Your task to perform on an android device: turn off smart reply in the gmail app Image 0: 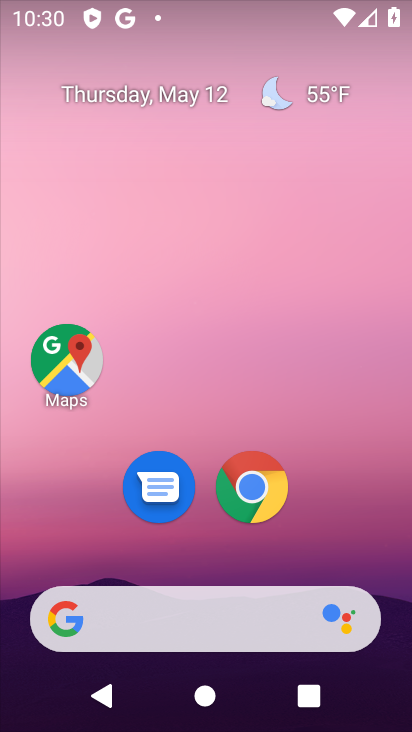
Step 0: drag from (372, 573) to (352, 11)
Your task to perform on an android device: turn off smart reply in the gmail app Image 1: 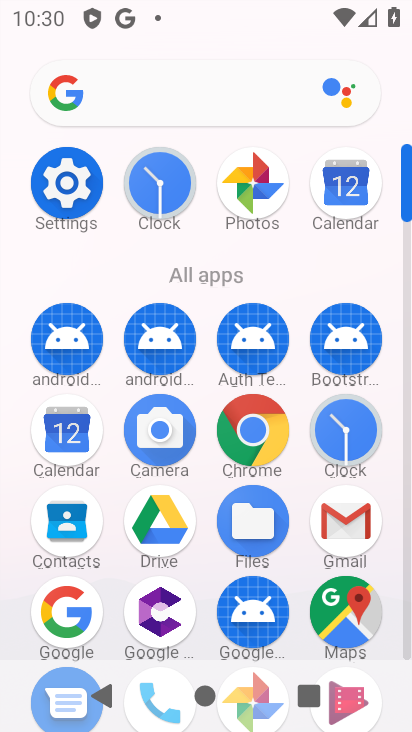
Step 1: click (344, 516)
Your task to perform on an android device: turn off smart reply in the gmail app Image 2: 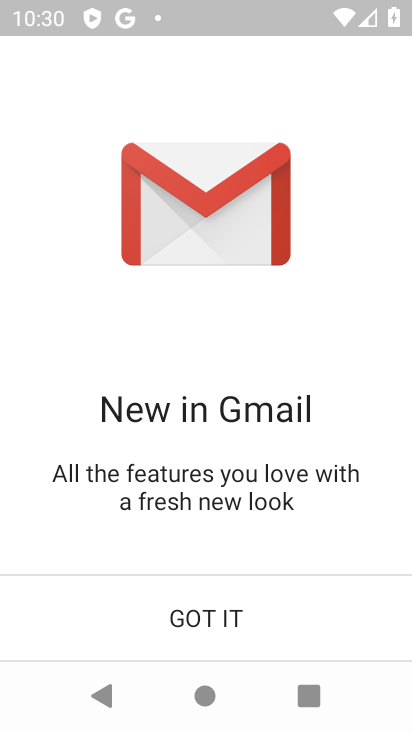
Step 2: click (190, 617)
Your task to perform on an android device: turn off smart reply in the gmail app Image 3: 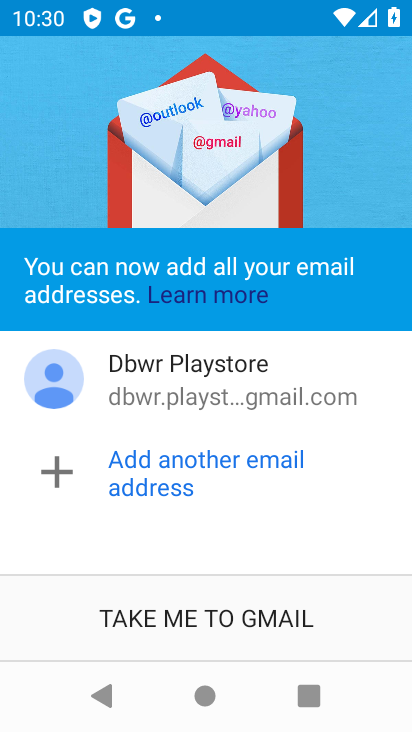
Step 3: click (190, 617)
Your task to perform on an android device: turn off smart reply in the gmail app Image 4: 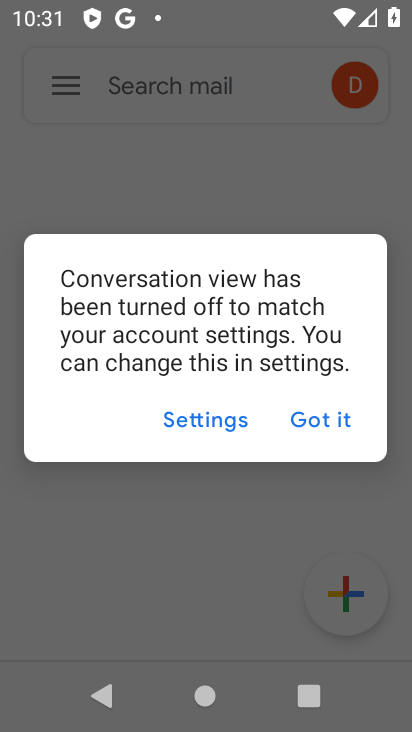
Step 4: click (330, 422)
Your task to perform on an android device: turn off smart reply in the gmail app Image 5: 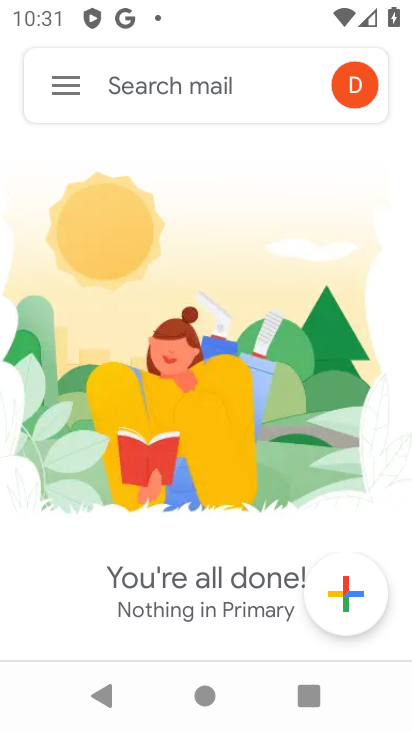
Step 5: click (71, 95)
Your task to perform on an android device: turn off smart reply in the gmail app Image 6: 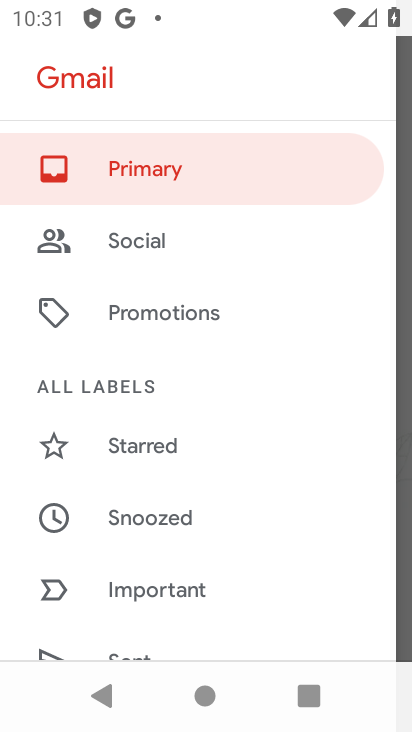
Step 6: drag from (242, 513) to (229, 189)
Your task to perform on an android device: turn off smart reply in the gmail app Image 7: 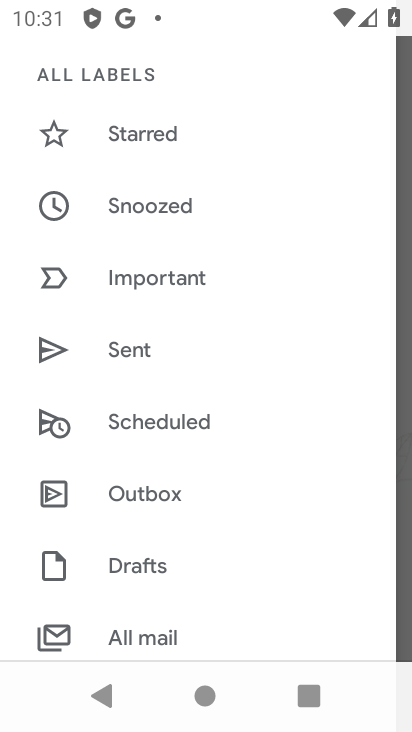
Step 7: drag from (208, 505) to (196, 55)
Your task to perform on an android device: turn off smart reply in the gmail app Image 8: 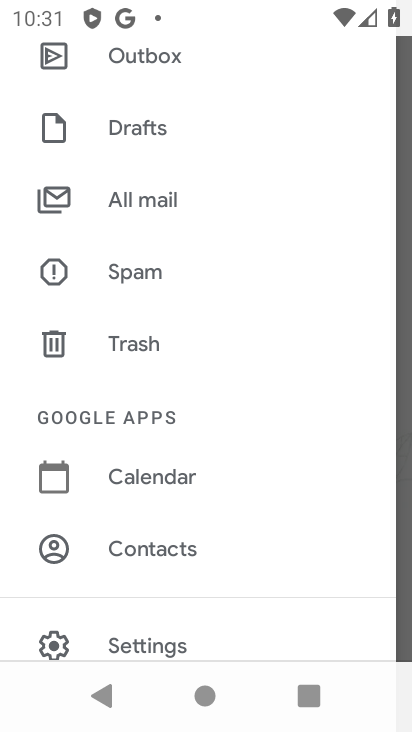
Step 8: click (139, 638)
Your task to perform on an android device: turn off smart reply in the gmail app Image 9: 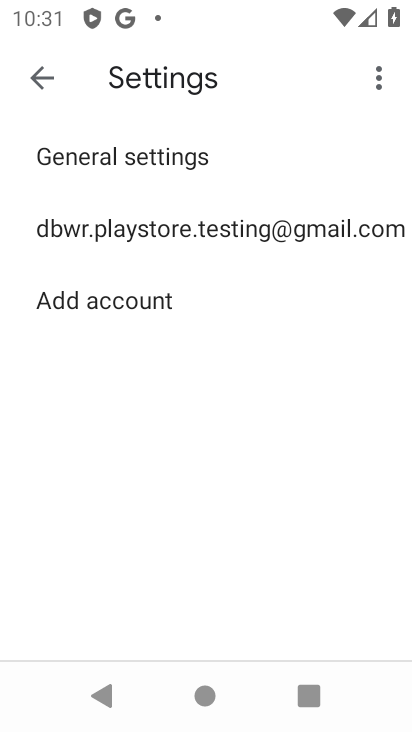
Step 9: click (117, 231)
Your task to perform on an android device: turn off smart reply in the gmail app Image 10: 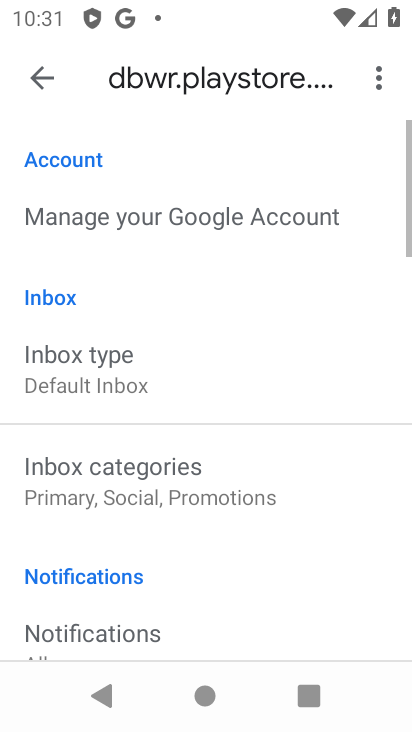
Step 10: drag from (217, 546) to (206, 107)
Your task to perform on an android device: turn off smart reply in the gmail app Image 11: 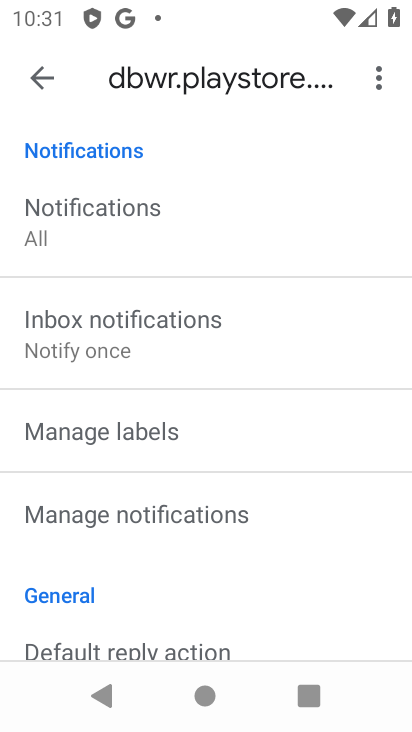
Step 11: drag from (218, 436) to (204, 111)
Your task to perform on an android device: turn off smart reply in the gmail app Image 12: 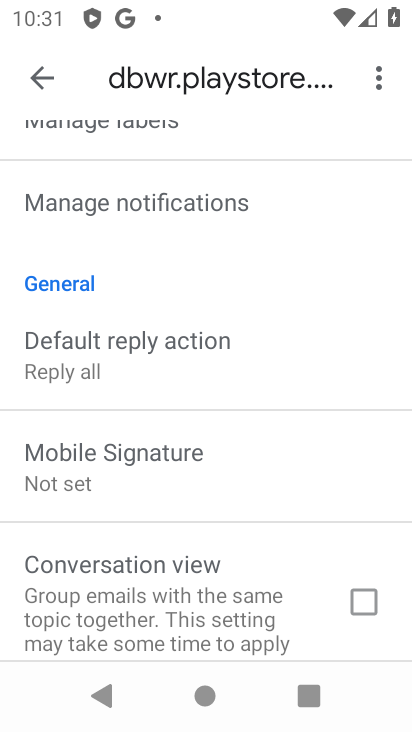
Step 12: drag from (194, 458) to (167, 62)
Your task to perform on an android device: turn off smart reply in the gmail app Image 13: 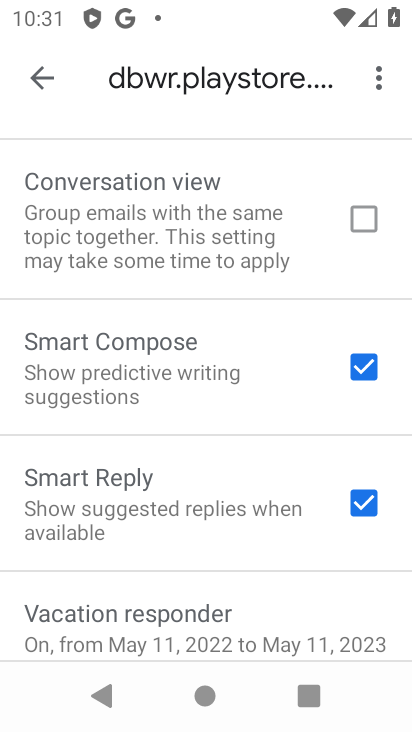
Step 13: click (368, 504)
Your task to perform on an android device: turn off smart reply in the gmail app Image 14: 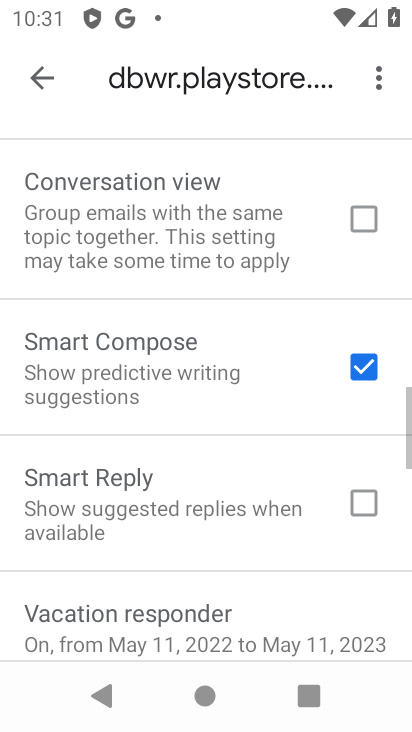
Step 14: task complete